Your task to perform on an android device: turn pop-ups on in chrome Image 0: 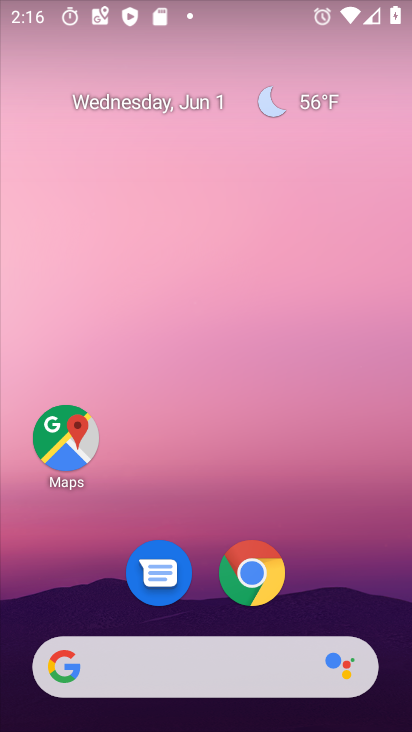
Step 0: drag from (334, 577) to (248, 33)
Your task to perform on an android device: turn pop-ups on in chrome Image 1: 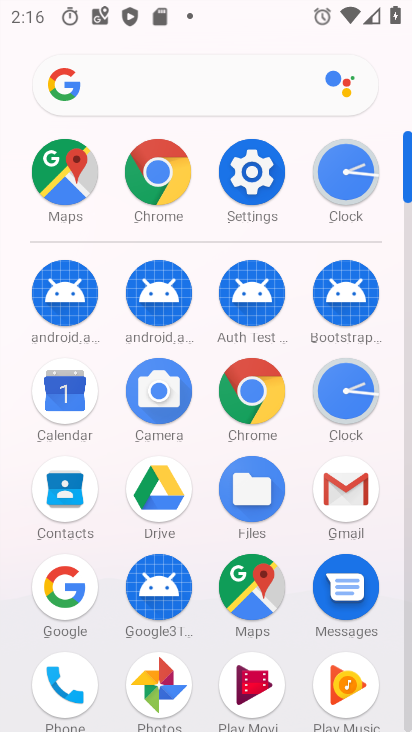
Step 1: click (145, 177)
Your task to perform on an android device: turn pop-ups on in chrome Image 2: 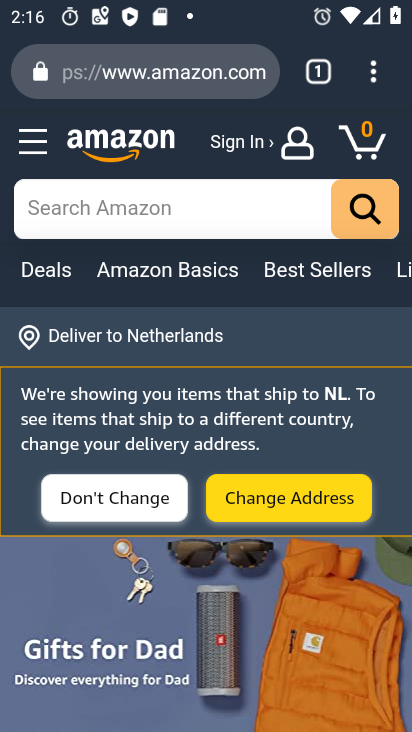
Step 2: drag from (388, 81) to (110, 583)
Your task to perform on an android device: turn pop-ups on in chrome Image 3: 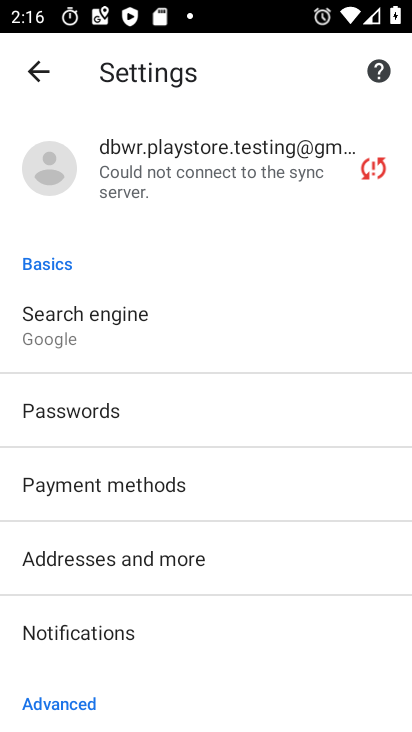
Step 3: drag from (197, 625) to (270, 203)
Your task to perform on an android device: turn pop-ups on in chrome Image 4: 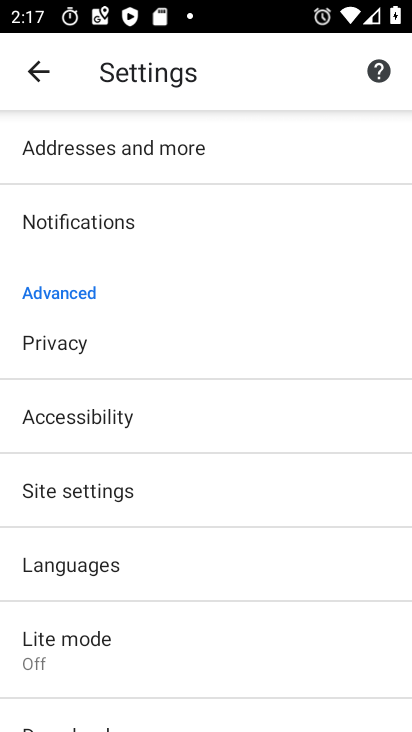
Step 4: click (168, 486)
Your task to perform on an android device: turn pop-ups on in chrome Image 5: 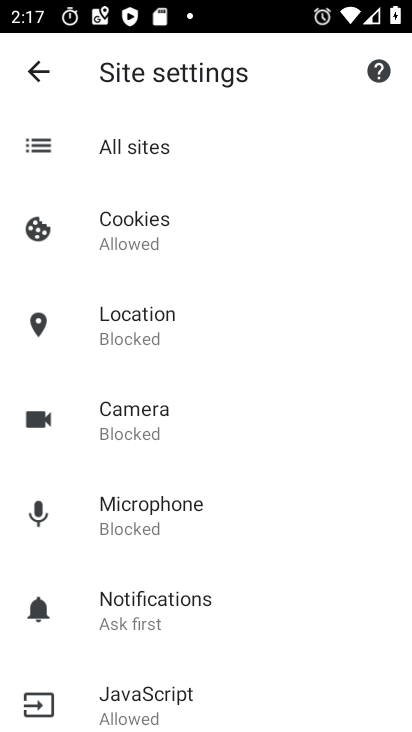
Step 5: drag from (220, 688) to (204, 215)
Your task to perform on an android device: turn pop-ups on in chrome Image 6: 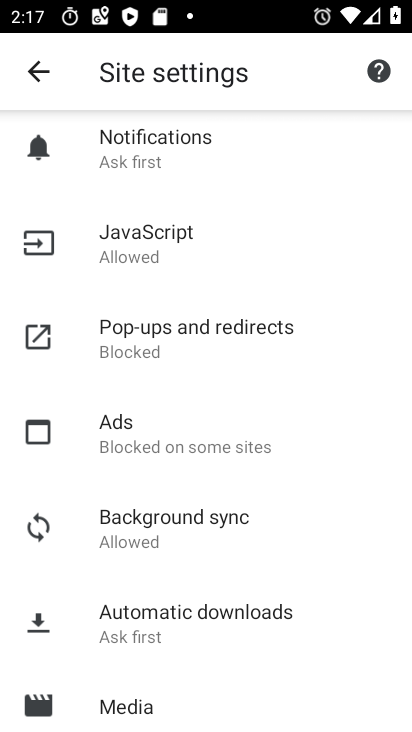
Step 6: click (140, 302)
Your task to perform on an android device: turn pop-ups on in chrome Image 7: 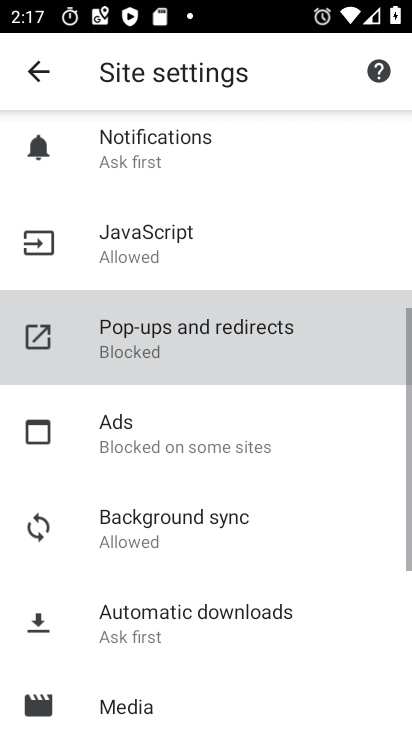
Step 7: click (134, 328)
Your task to perform on an android device: turn pop-ups on in chrome Image 8: 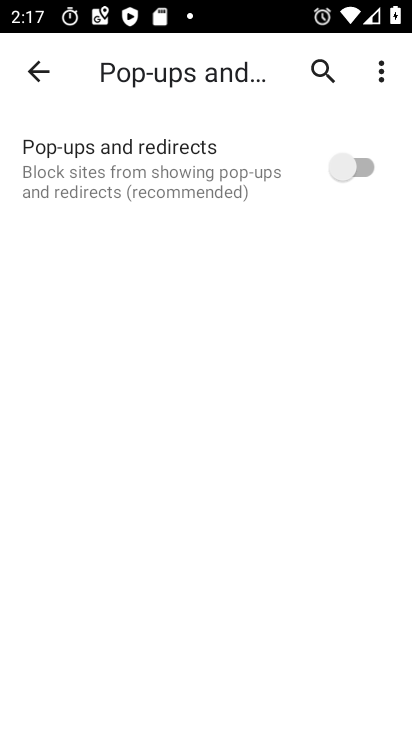
Step 8: click (349, 177)
Your task to perform on an android device: turn pop-ups on in chrome Image 9: 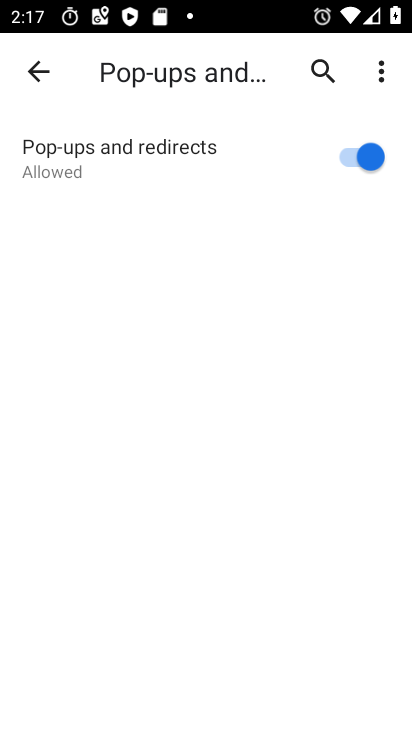
Step 9: task complete